Your task to perform on an android device: toggle notifications settings in the gmail app Image 0: 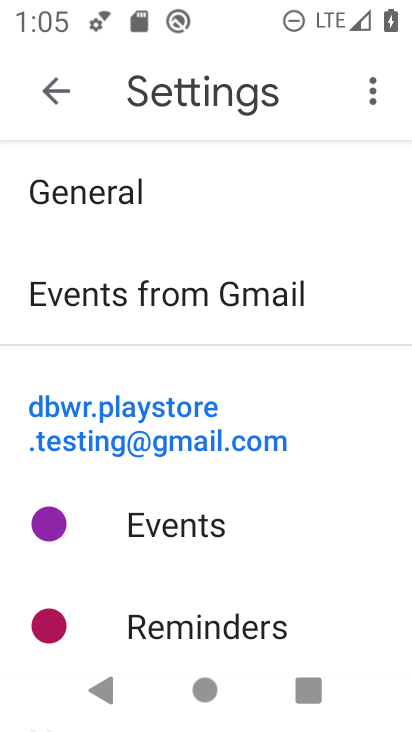
Step 0: press home button
Your task to perform on an android device: toggle notifications settings in the gmail app Image 1: 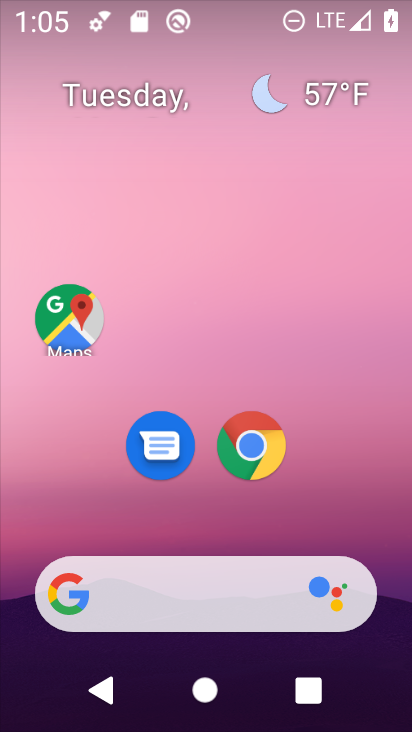
Step 1: drag from (382, 553) to (353, 156)
Your task to perform on an android device: toggle notifications settings in the gmail app Image 2: 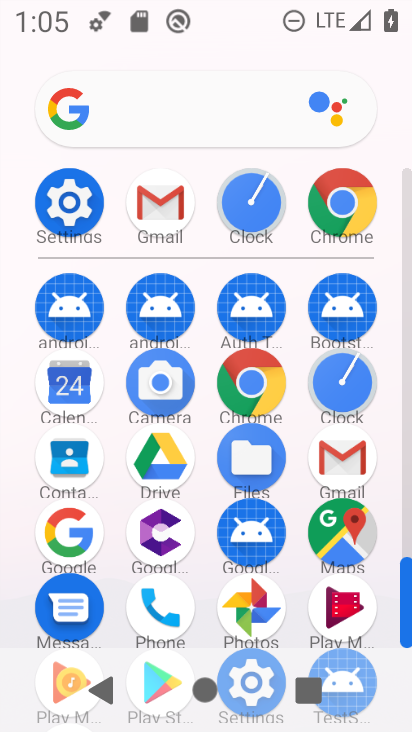
Step 2: click (359, 467)
Your task to perform on an android device: toggle notifications settings in the gmail app Image 3: 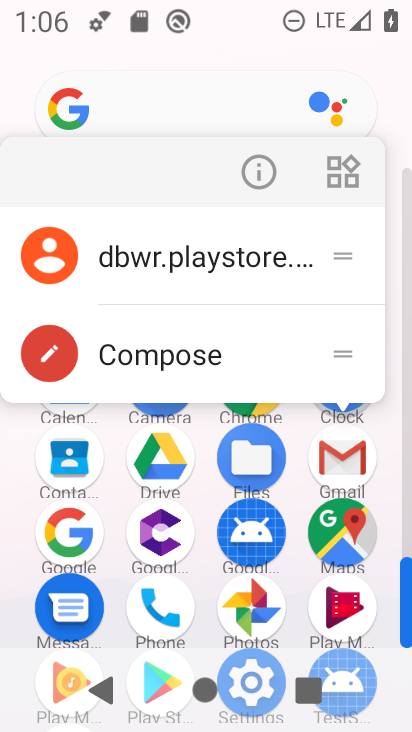
Step 3: click (359, 467)
Your task to perform on an android device: toggle notifications settings in the gmail app Image 4: 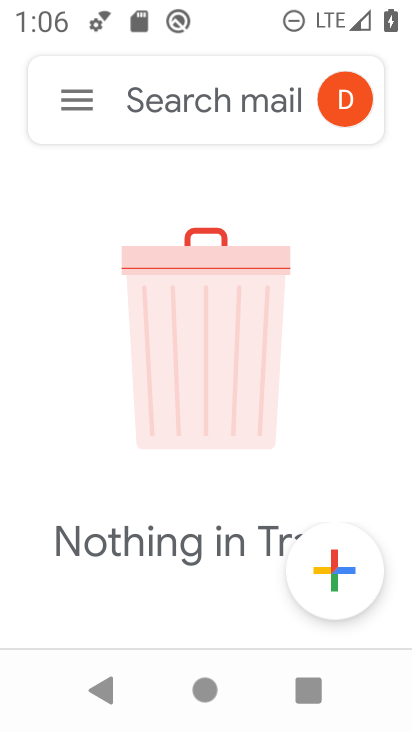
Step 4: click (87, 113)
Your task to perform on an android device: toggle notifications settings in the gmail app Image 5: 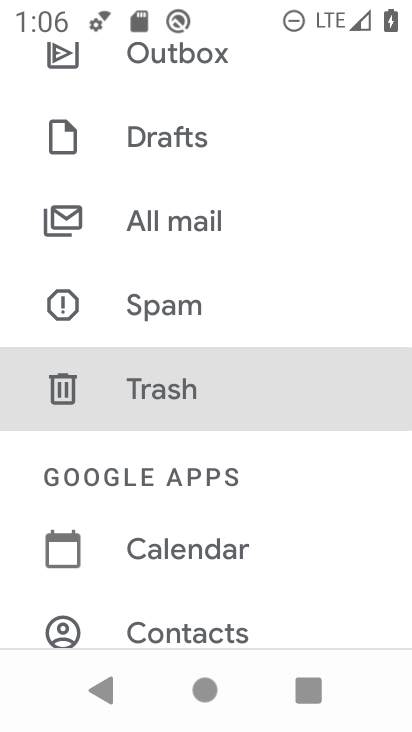
Step 5: drag from (293, 259) to (297, 368)
Your task to perform on an android device: toggle notifications settings in the gmail app Image 6: 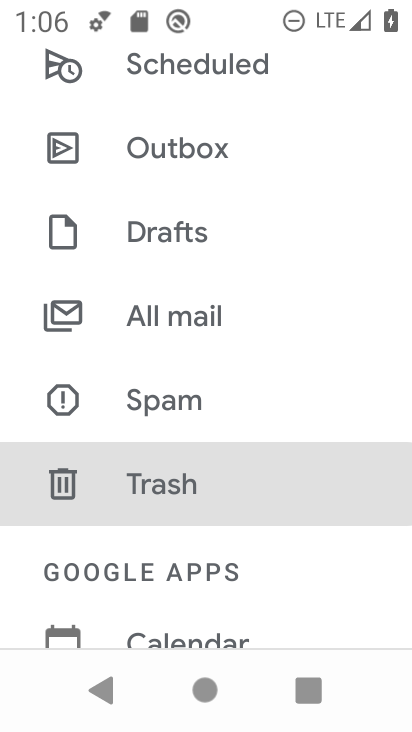
Step 6: drag from (321, 255) to (328, 368)
Your task to perform on an android device: toggle notifications settings in the gmail app Image 7: 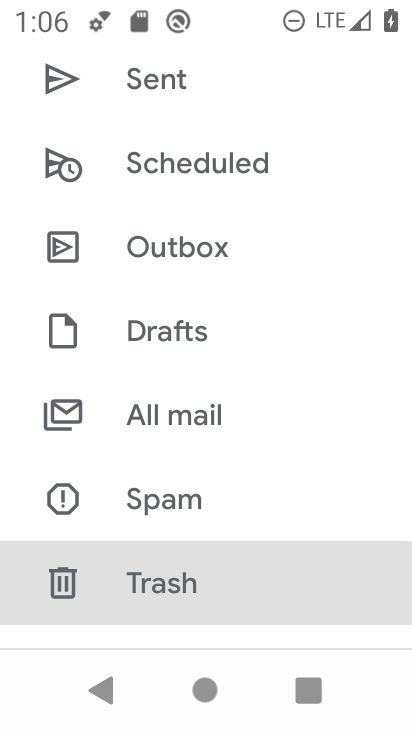
Step 7: drag from (335, 215) to (338, 373)
Your task to perform on an android device: toggle notifications settings in the gmail app Image 8: 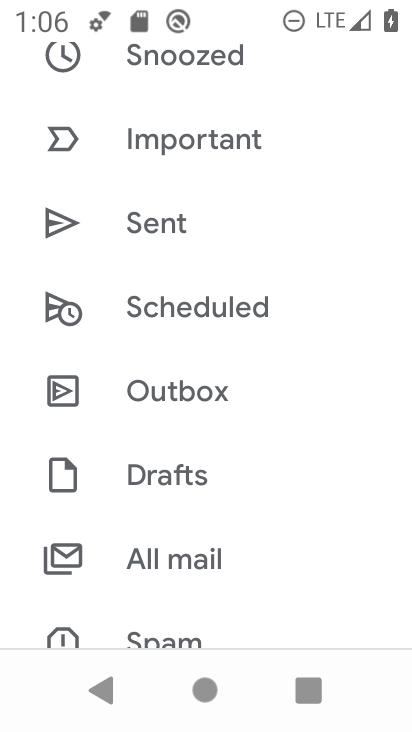
Step 8: drag from (332, 206) to (319, 355)
Your task to perform on an android device: toggle notifications settings in the gmail app Image 9: 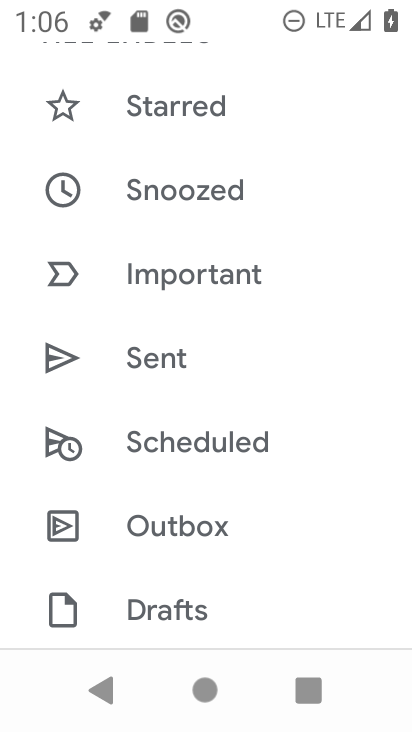
Step 9: drag from (314, 212) to (335, 326)
Your task to perform on an android device: toggle notifications settings in the gmail app Image 10: 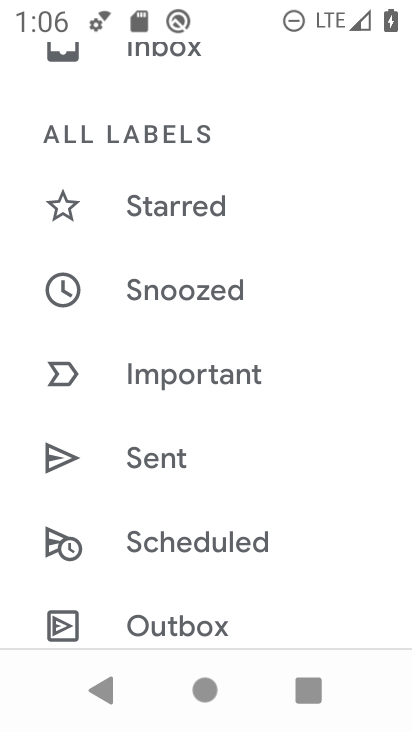
Step 10: drag from (358, 163) to (375, 329)
Your task to perform on an android device: toggle notifications settings in the gmail app Image 11: 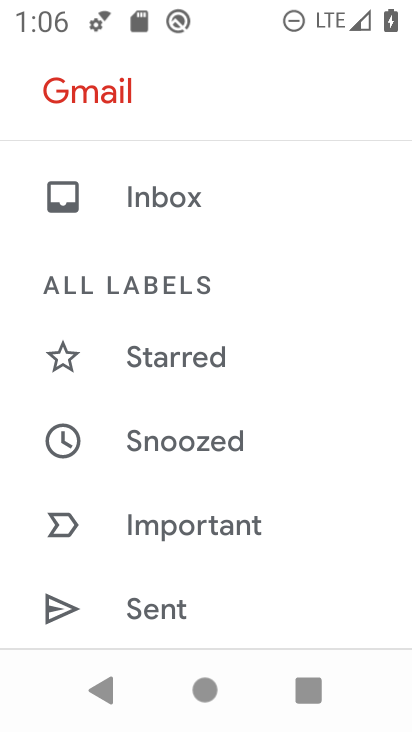
Step 11: drag from (350, 364) to (363, 221)
Your task to perform on an android device: toggle notifications settings in the gmail app Image 12: 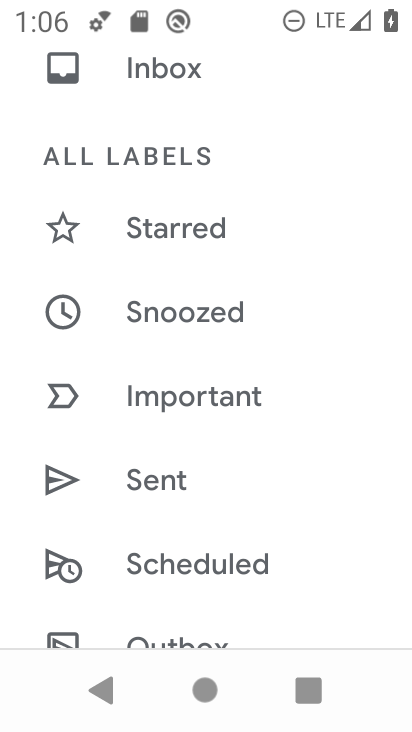
Step 12: drag from (374, 398) to (363, 280)
Your task to perform on an android device: toggle notifications settings in the gmail app Image 13: 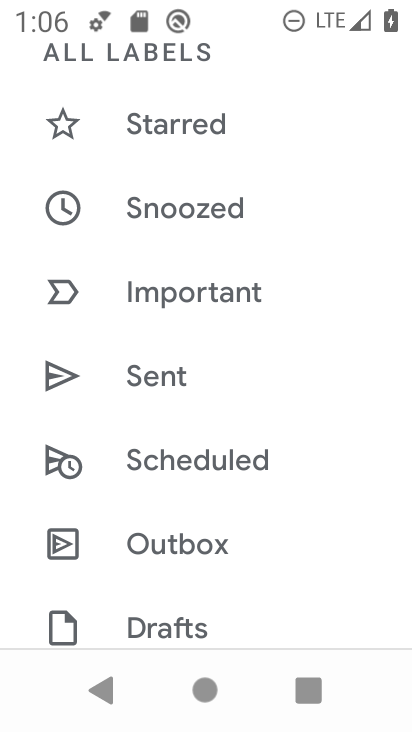
Step 13: drag from (357, 452) to (367, 330)
Your task to perform on an android device: toggle notifications settings in the gmail app Image 14: 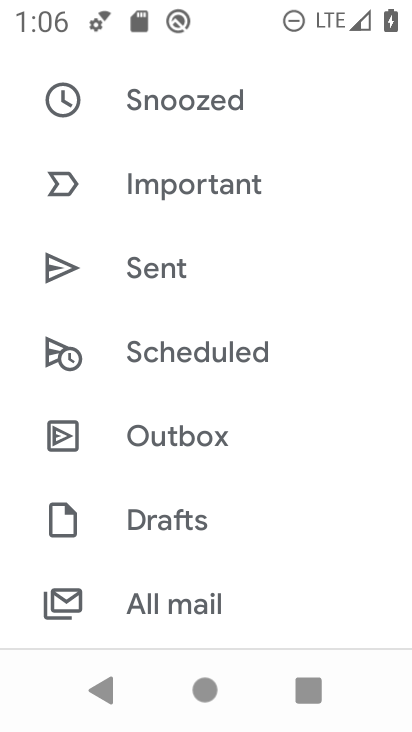
Step 14: drag from (374, 454) to (371, 362)
Your task to perform on an android device: toggle notifications settings in the gmail app Image 15: 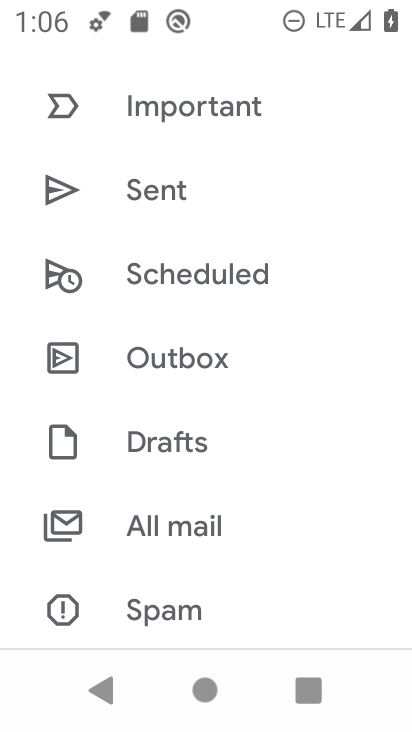
Step 15: drag from (355, 499) to (366, 391)
Your task to perform on an android device: toggle notifications settings in the gmail app Image 16: 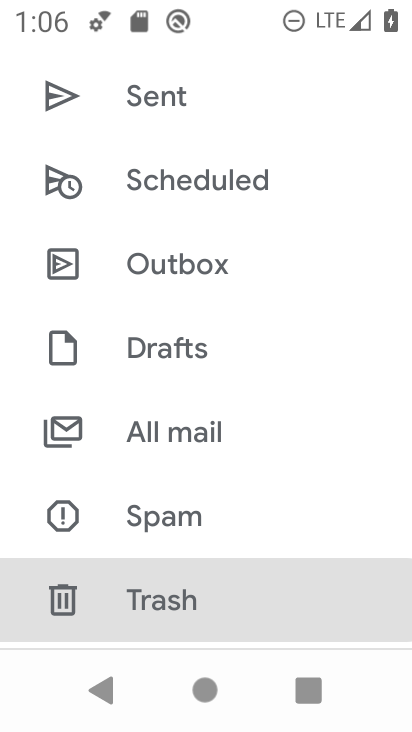
Step 16: drag from (356, 500) to (354, 385)
Your task to perform on an android device: toggle notifications settings in the gmail app Image 17: 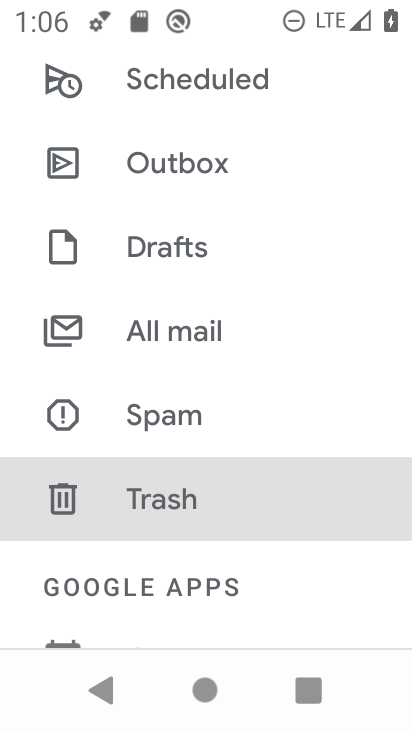
Step 17: drag from (356, 563) to (365, 412)
Your task to perform on an android device: toggle notifications settings in the gmail app Image 18: 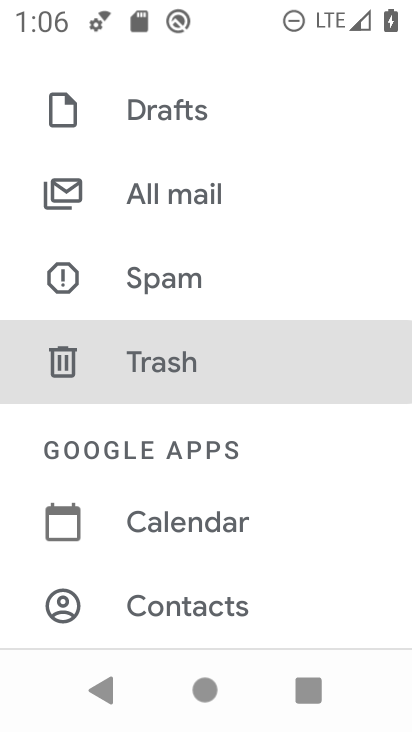
Step 18: drag from (337, 589) to (351, 400)
Your task to perform on an android device: toggle notifications settings in the gmail app Image 19: 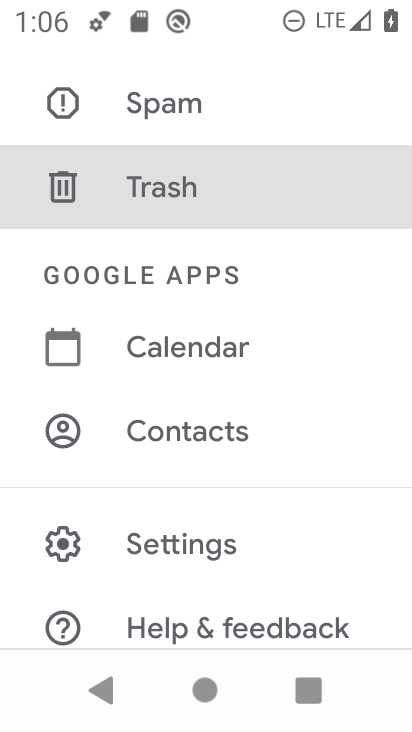
Step 19: click (329, 546)
Your task to perform on an android device: toggle notifications settings in the gmail app Image 20: 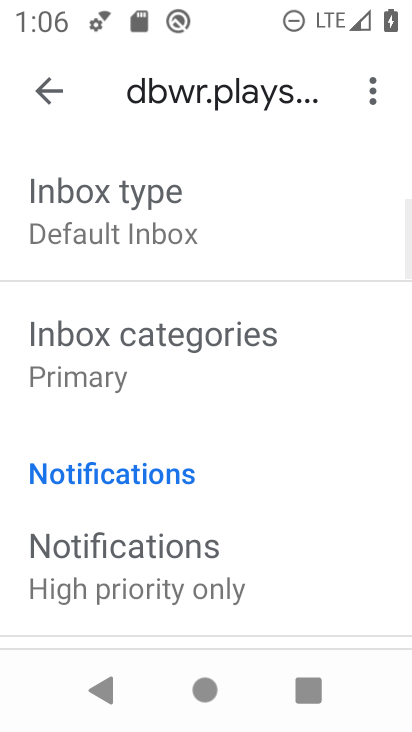
Step 20: drag from (336, 539) to (324, 452)
Your task to perform on an android device: toggle notifications settings in the gmail app Image 21: 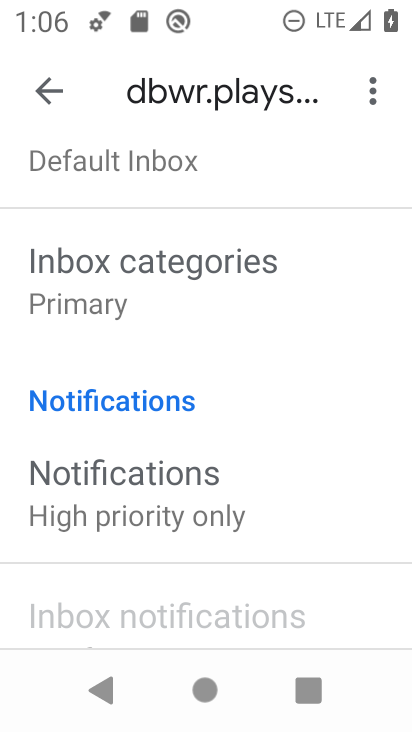
Step 21: drag from (352, 528) to (355, 388)
Your task to perform on an android device: toggle notifications settings in the gmail app Image 22: 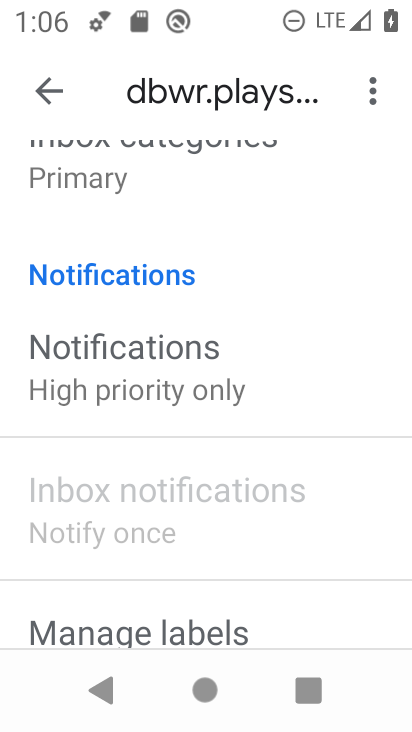
Step 22: drag from (328, 553) to (322, 399)
Your task to perform on an android device: toggle notifications settings in the gmail app Image 23: 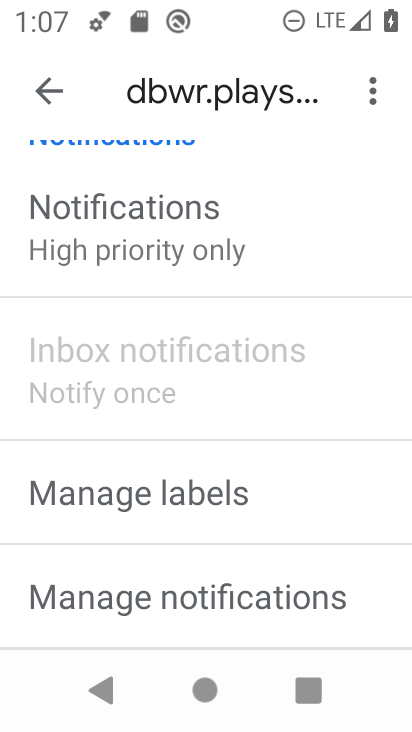
Step 23: click (338, 603)
Your task to perform on an android device: toggle notifications settings in the gmail app Image 24: 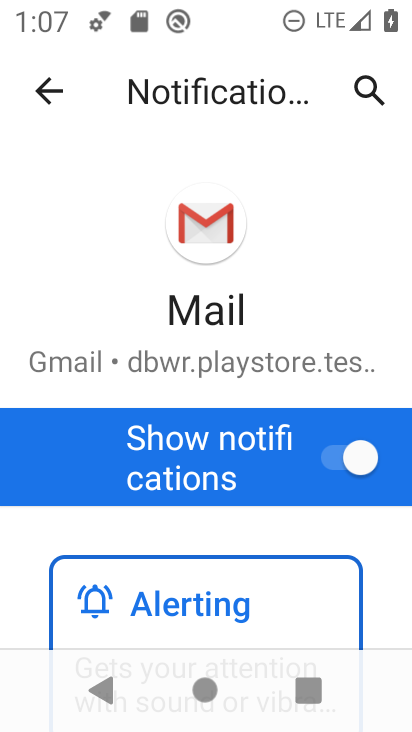
Step 24: click (362, 458)
Your task to perform on an android device: toggle notifications settings in the gmail app Image 25: 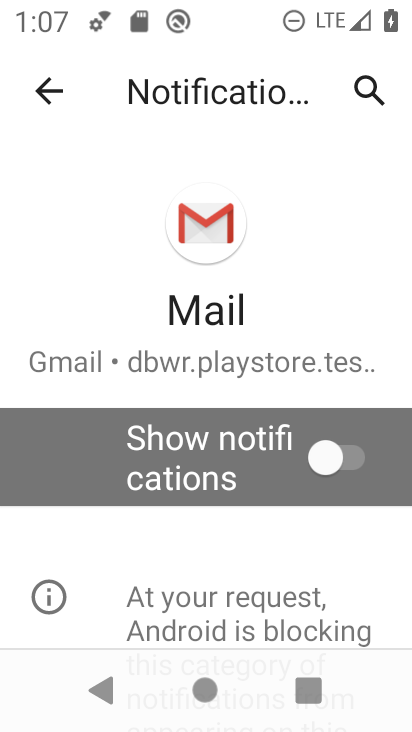
Step 25: task complete